Your task to perform on an android device: delete a single message in the gmail app Image 0: 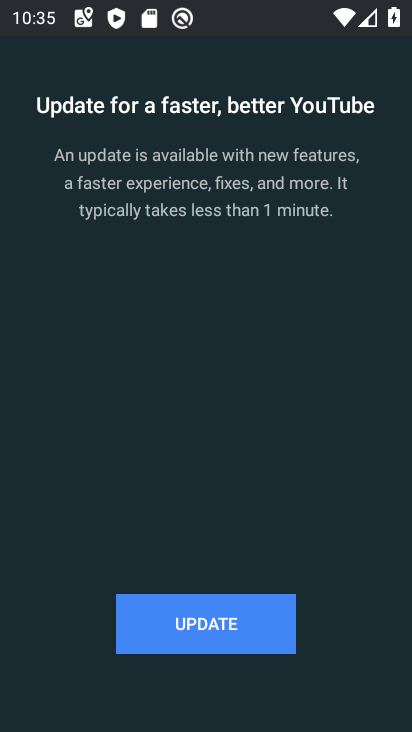
Step 0: press home button
Your task to perform on an android device: delete a single message in the gmail app Image 1: 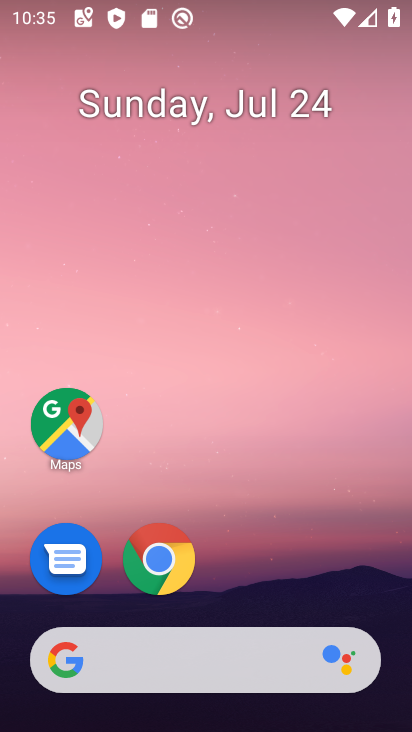
Step 1: drag from (236, 594) to (231, 18)
Your task to perform on an android device: delete a single message in the gmail app Image 2: 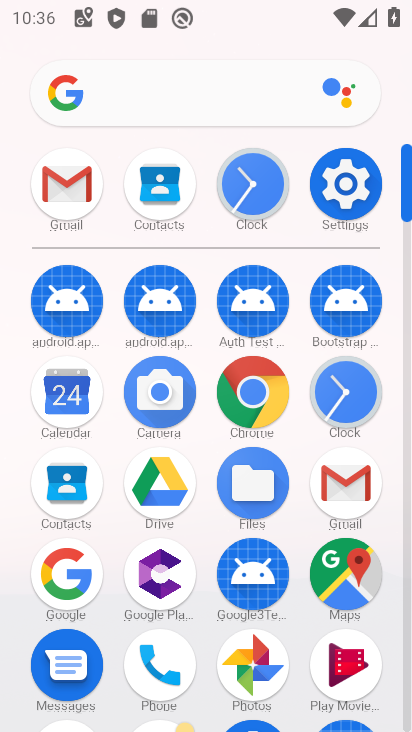
Step 2: click (65, 175)
Your task to perform on an android device: delete a single message in the gmail app Image 3: 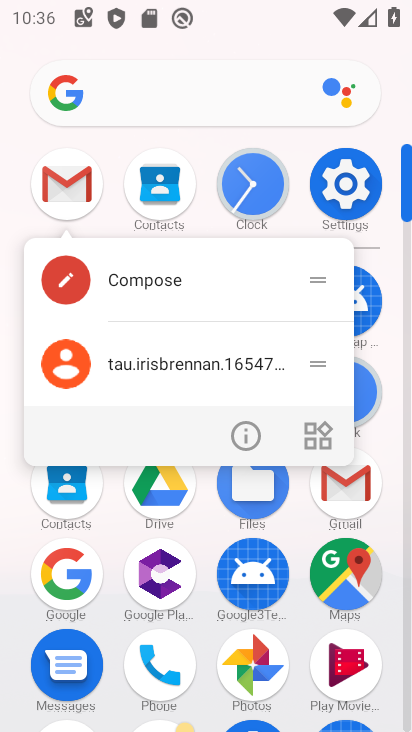
Step 3: click (69, 179)
Your task to perform on an android device: delete a single message in the gmail app Image 4: 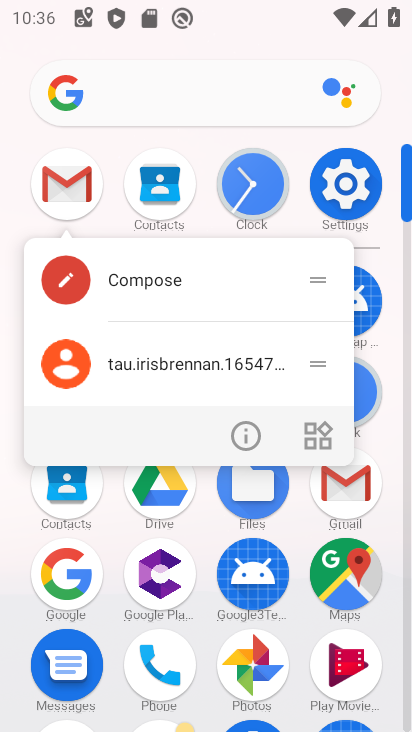
Step 4: click (72, 204)
Your task to perform on an android device: delete a single message in the gmail app Image 5: 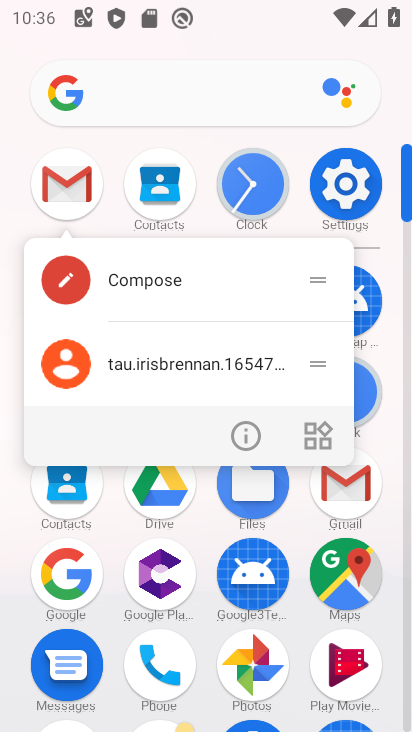
Step 5: click (65, 179)
Your task to perform on an android device: delete a single message in the gmail app Image 6: 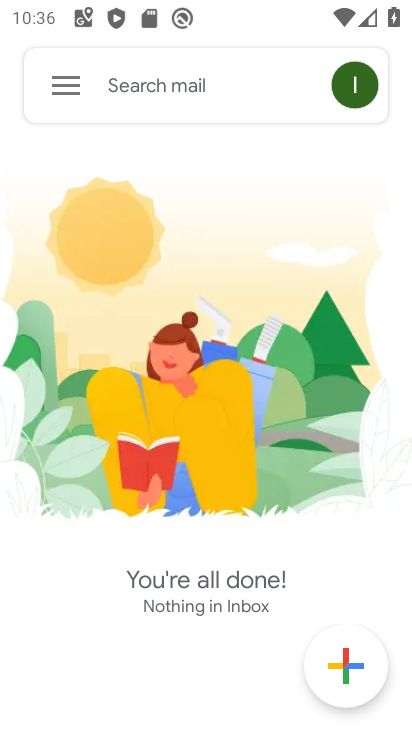
Step 6: click (69, 73)
Your task to perform on an android device: delete a single message in the gmail app Image 7: 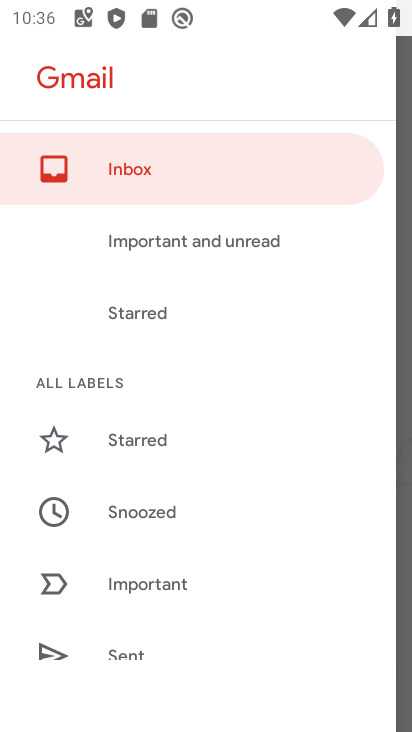
Step 7: drag from (123, 634) to (314, 50)
Your task to perform on an android device: delete a single message in the gmail app Image 8: 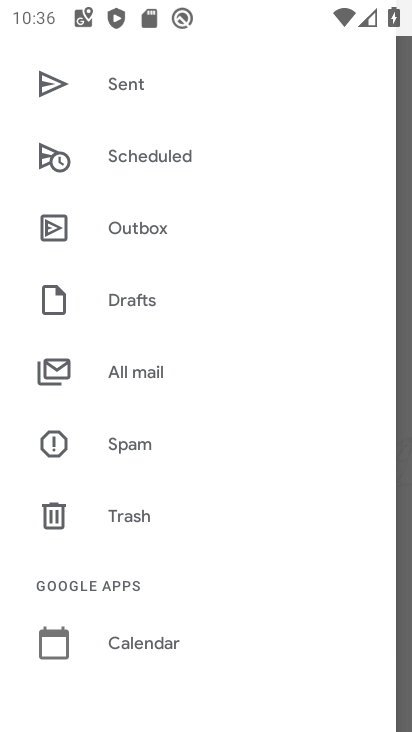
Step 8: click (168, 371)
Your task to perform on an android device: delete a single message in the gmail app Image 9: 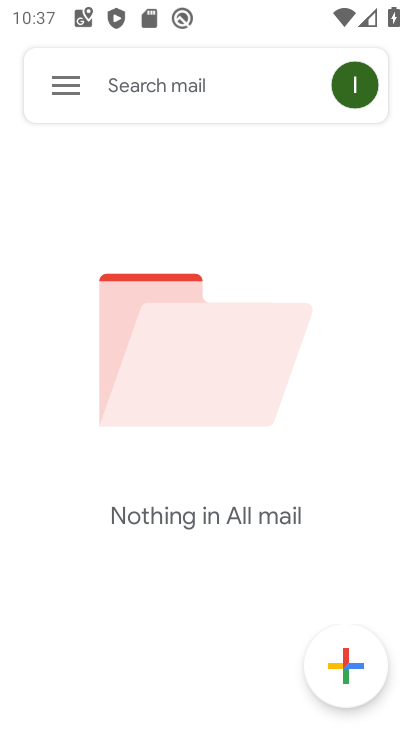
Step 9: task complete